Your task to perform on an android device: open a bookmark in the chrome app Image 0: 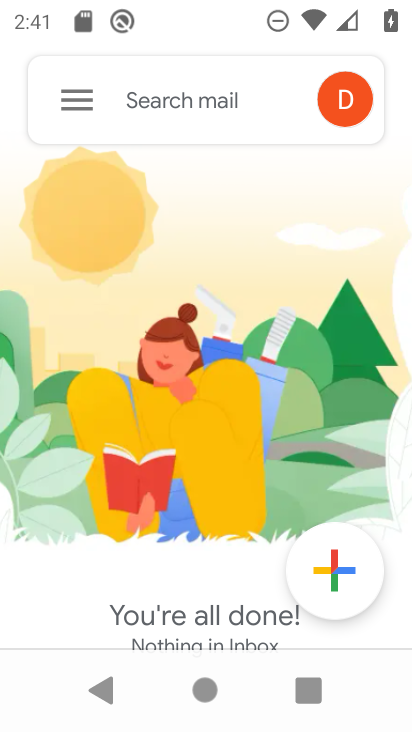
Step 0: press home button
Your task to perform on an android device: open a bookmark in the chrome app Image 1: 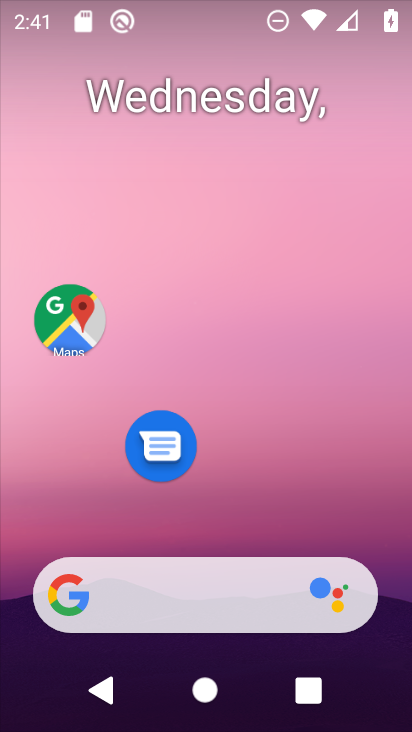
Step 1: drag from (355, 516) to (346, 79)
Your task to perform on an android device: open a bookmark in the chrome app Image 2: 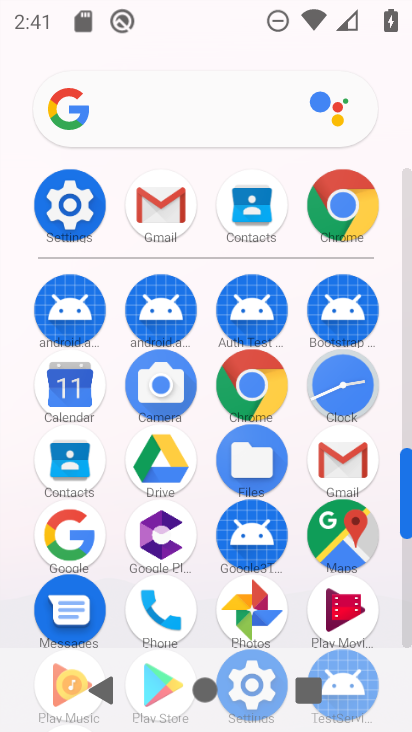
Step 2: click (345, 204)
Your task to perform on an android device: open a bookmark in the chrome app Image 3: 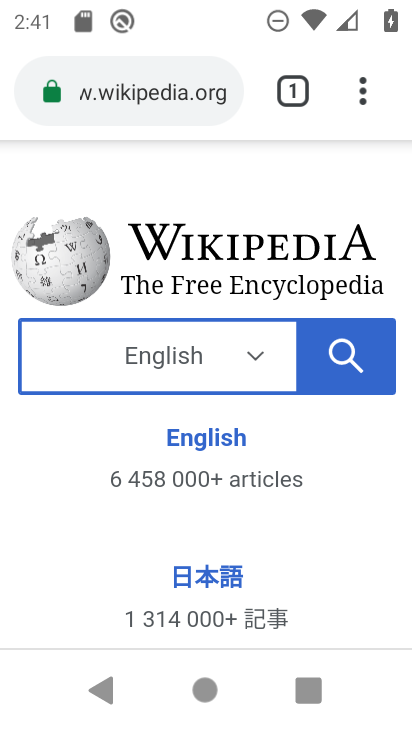
Step 3: click (366, 107)
Your task to perform on an android device: open a bookmark in the chrome app Image 4: 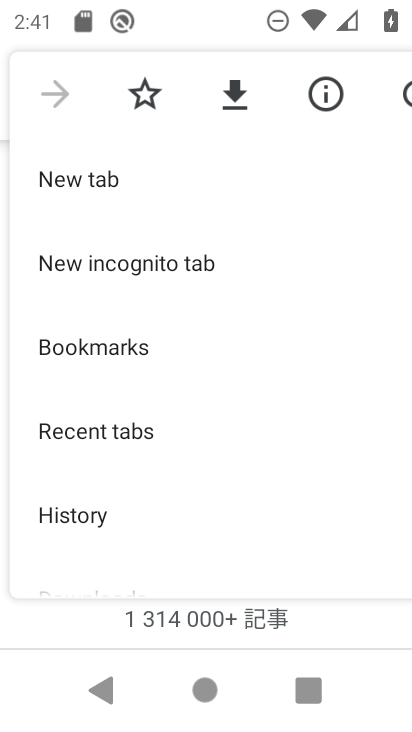
Step 4: click (252, 346)
Your task to perform on an android device: open a bookmark in the chrome app Image 5: 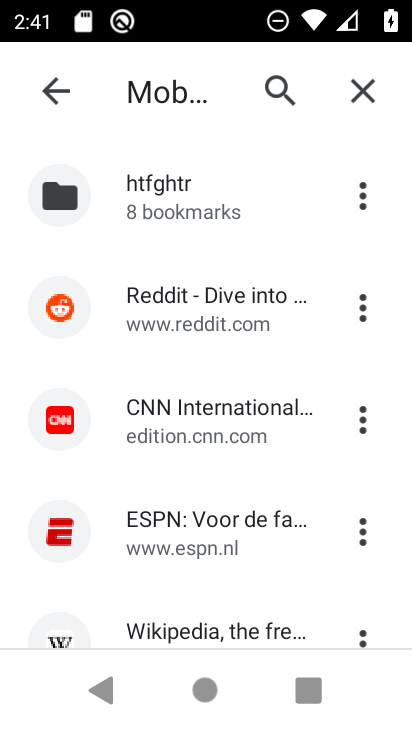
Step 5: click (169, 212)
Your task to perform on an android device: open a bookmark in the chrome app Image 6: 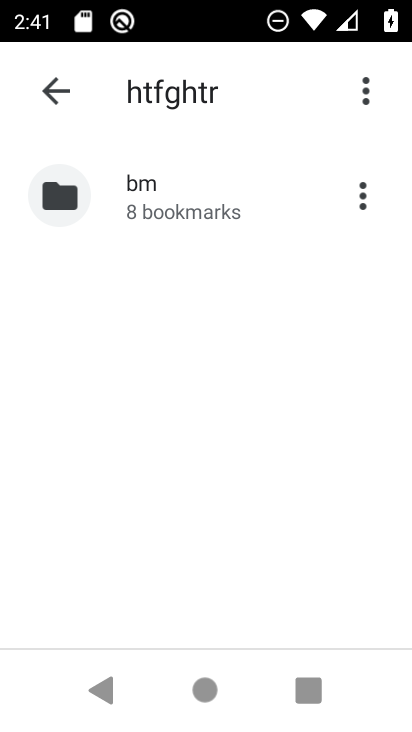
Step 6: click (169, 212)
Your task to perform on an android device: open a bookmark in the chrome app Image 7: 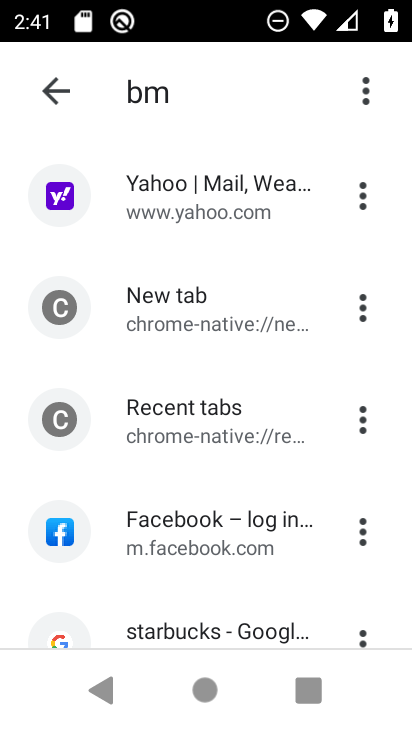
Step 7: click (169, 212)
Your task to perform on an android device: open a bookmark in the chrome app Image 8: 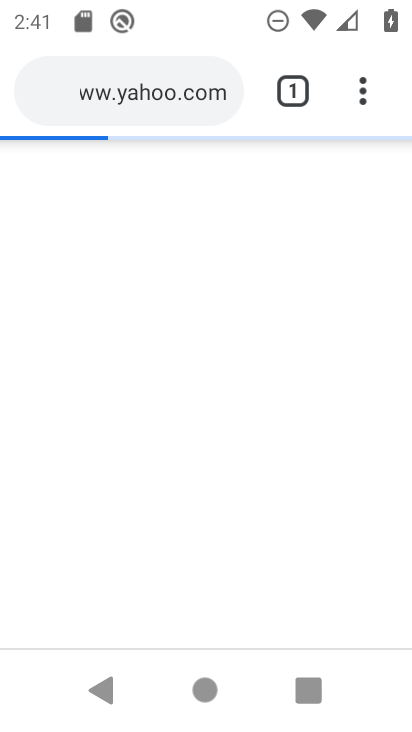
Step 8: task complete